Your task to perform on an android device: Open display settings Image 0: 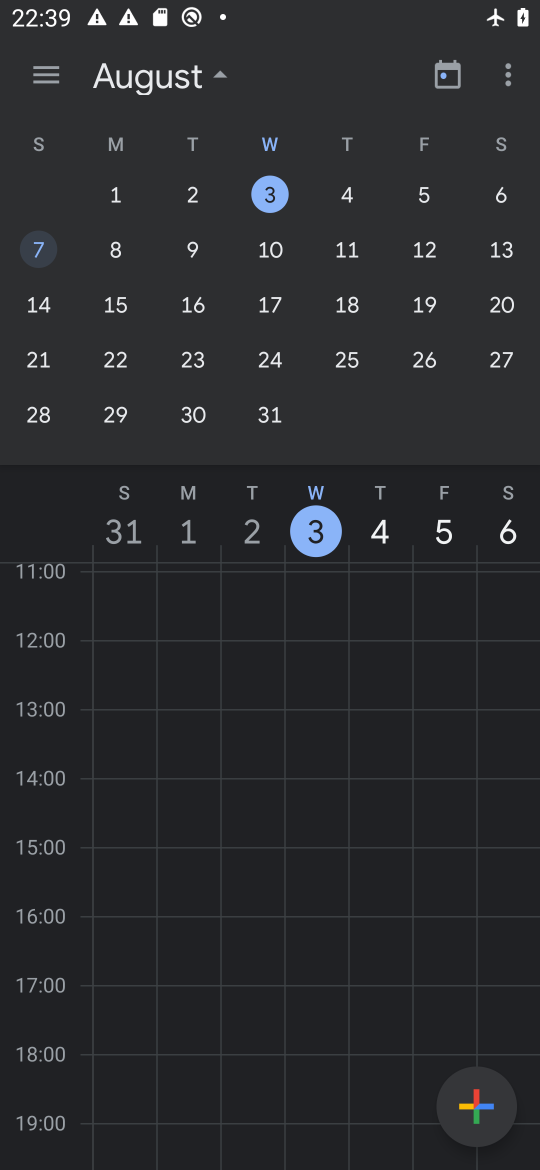
Step 0: press home button
Your task to perform on an android device: Open display settings Image 1: 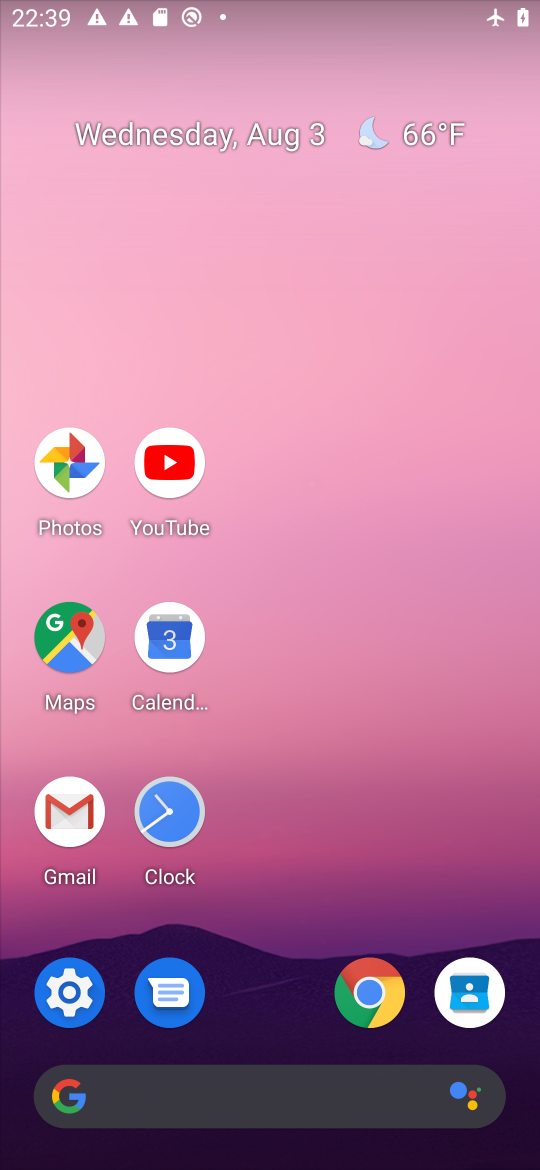
Step 1: click (72, 990)
Your task to perform on an android device: Open display settings Image 2: 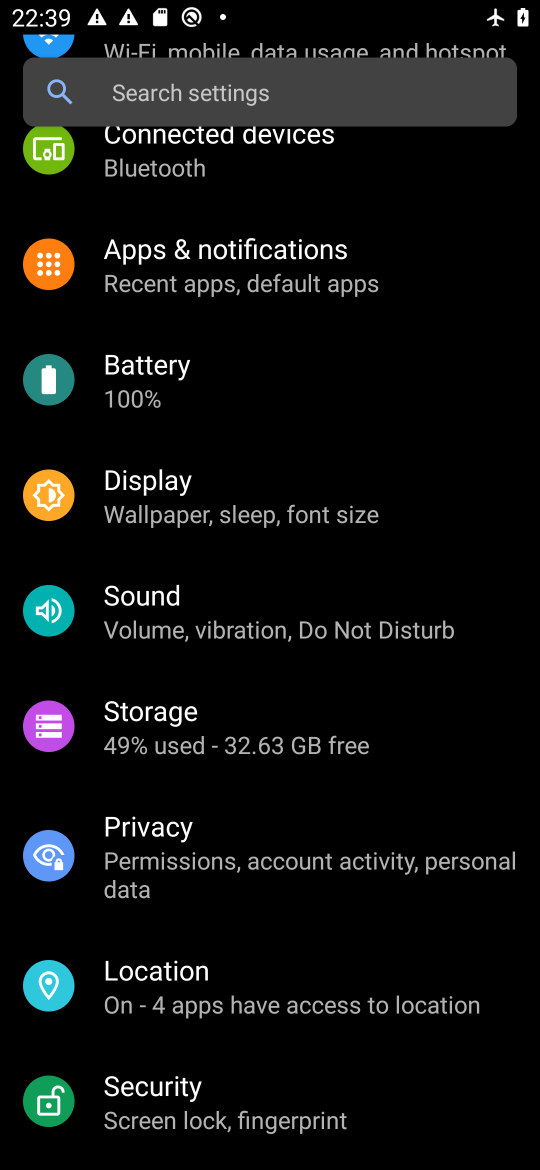
Step 2: click (166, 482)
Your task to perform on an android device: Open display settings Image 3: 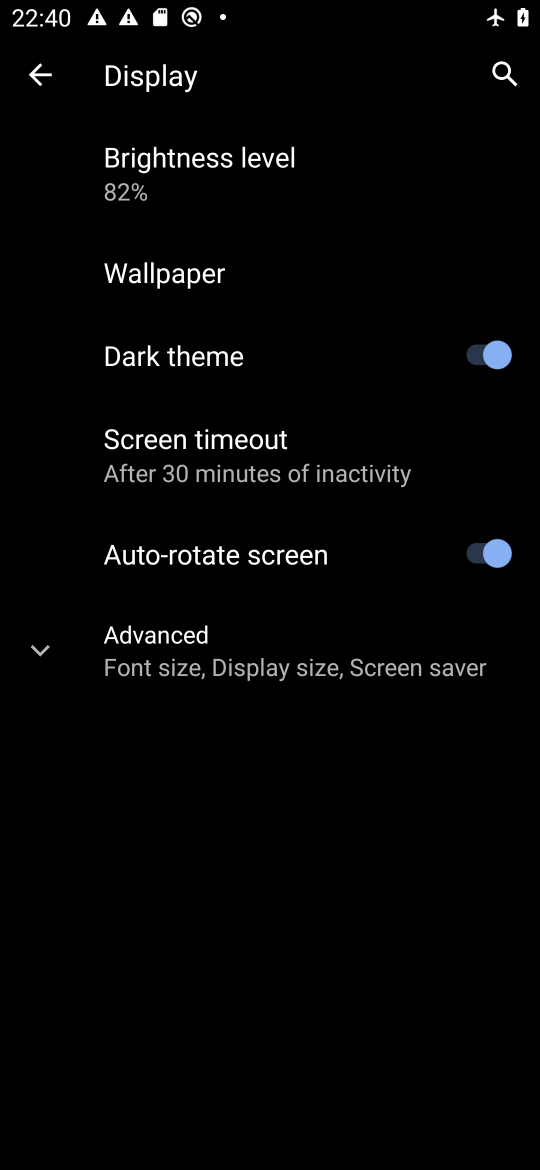
Step 3: task complete